Your task to perform on an android device: turn off data saver in the chrome app Image 0: 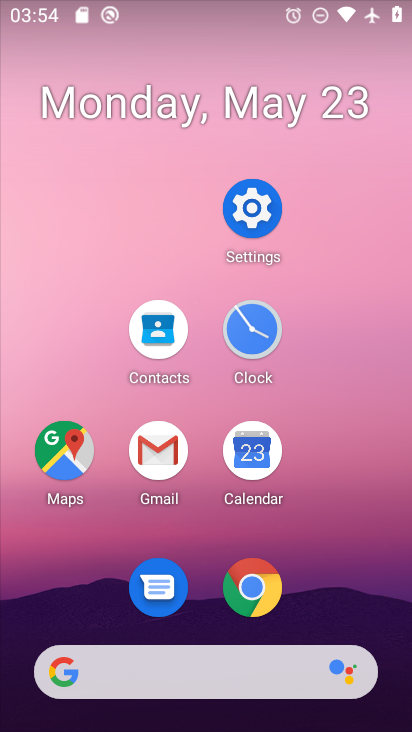
Step 0: click (261, 577)
Your task to perform on an android device: turn off data saver in the chrome app Image 1: 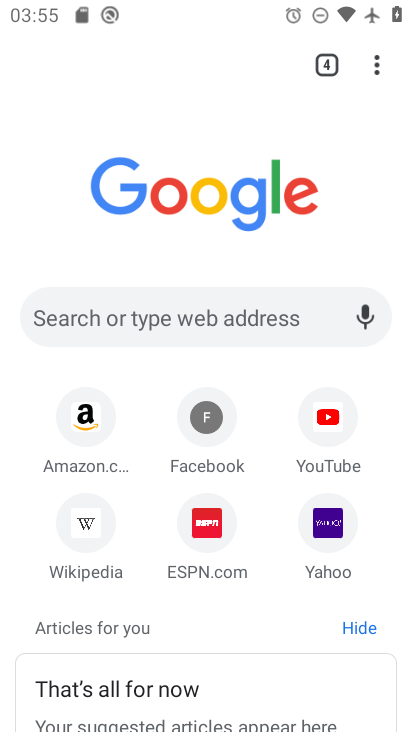
Step 1: click (376, 71)
Your task to perform on an android device: turn off data saver in the chrome app Image 2: 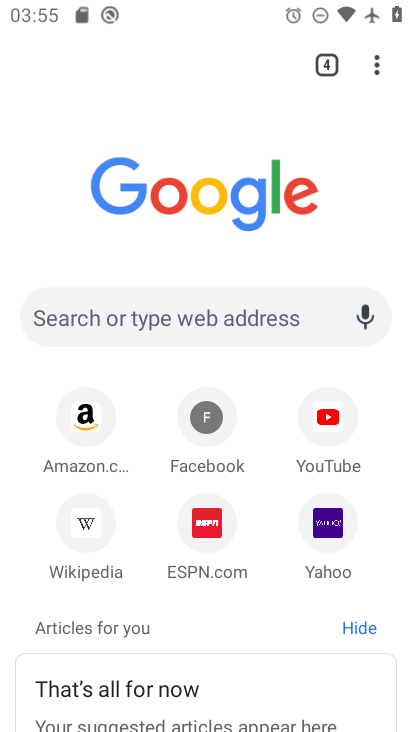
Step 2: click (379, 85)
Your task to perform on an android device: turn off data saver in the chrome app Image 3: 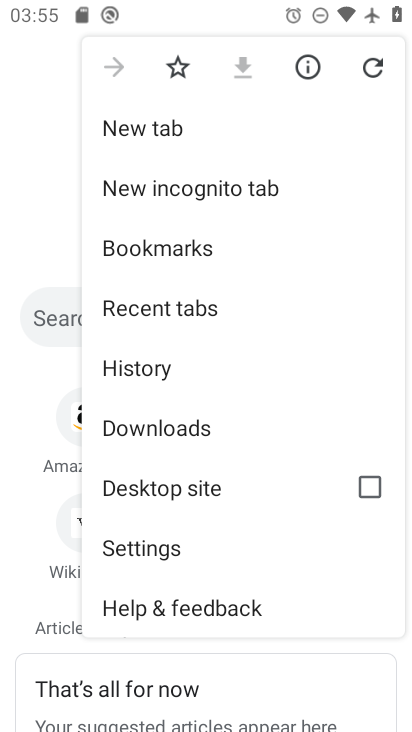
Step 3: click (161, 556)
Your task to perform on an android device: turn off data saver in the chrome app Image 4: 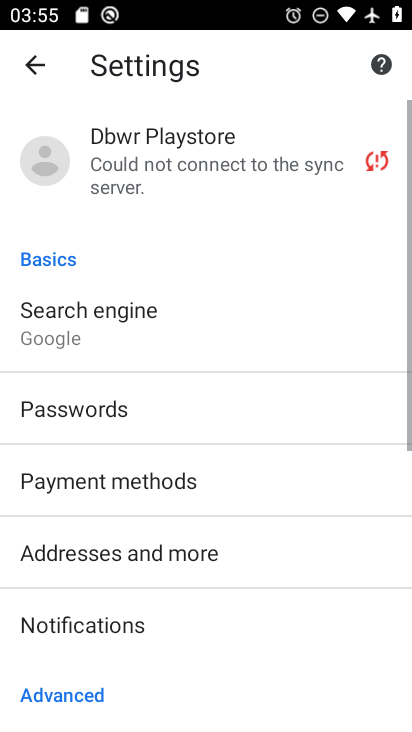
Step 4: drag from (161, 556) to (187, 250)
Your task to perform on an android device: turn off data saver in the chrome app Image 5: 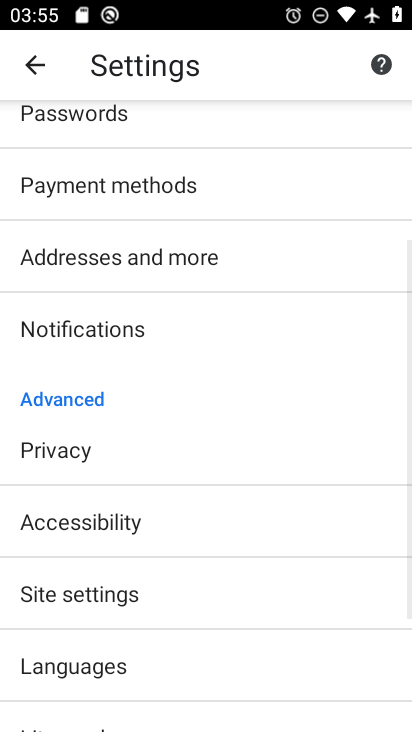
Step 5: drag from (250, 661) to (266, 346)
Your task to perform on an android device: turn off data saver in the chrome app Image 6: 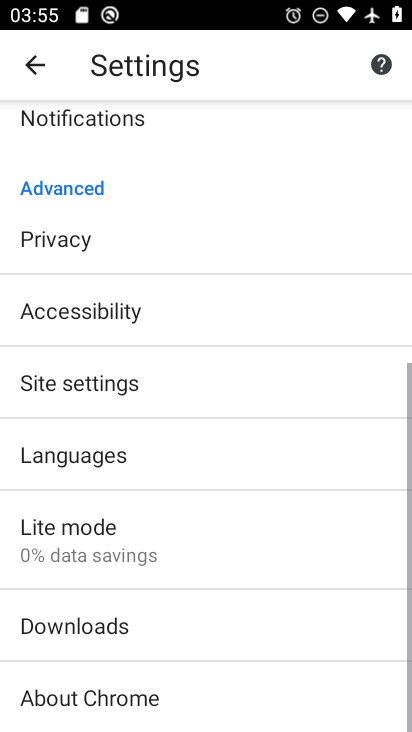
Step 6: click (223, 561)
Your task to perform on an android device: turn off data saver in the chrome app Image 7: 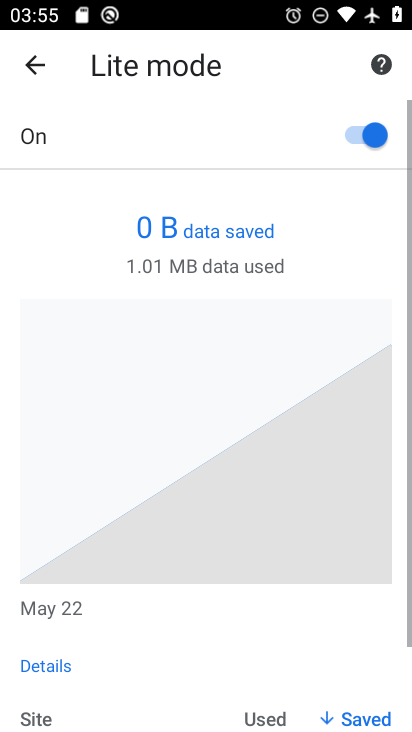
Step 7: click (389, 128)
Your task to perform on an android device: turn off data saver in the chrome app Image 8: 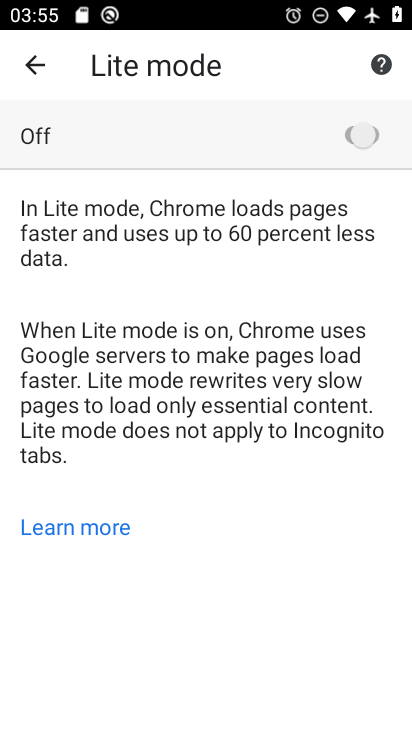
Step 8: click (389, 128)
Your task to perform on an android device: turn off data saver in the chrome app Image 9: 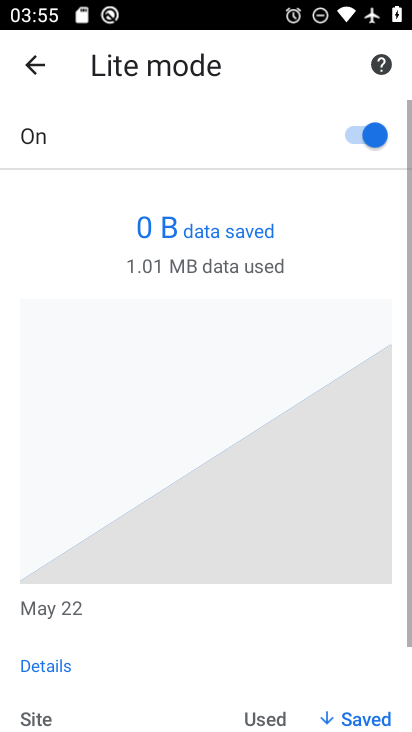
Step 9: click (389, 128)
Your task to perform on an android device: turn off data saver in the chrome app Image 10: 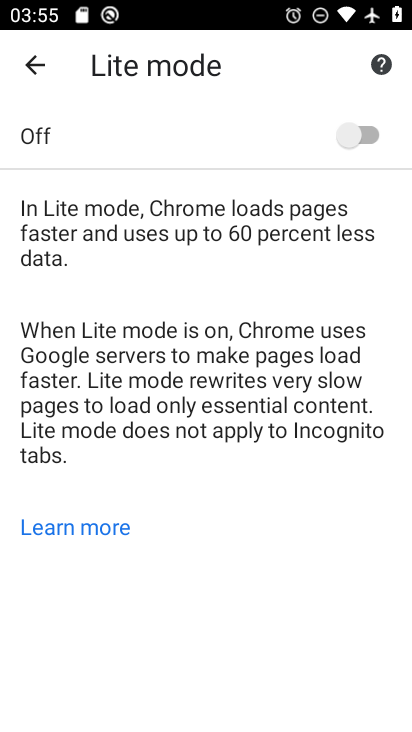
Step 10: task complete